Your task to perform on an android device: Go to internet settings Image 0: 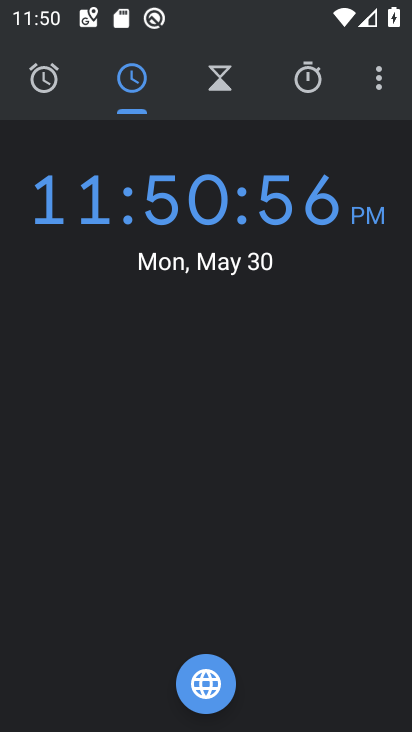
Step 0: press home button
Your task to perform on an android device: Go to internet settings Image 1: 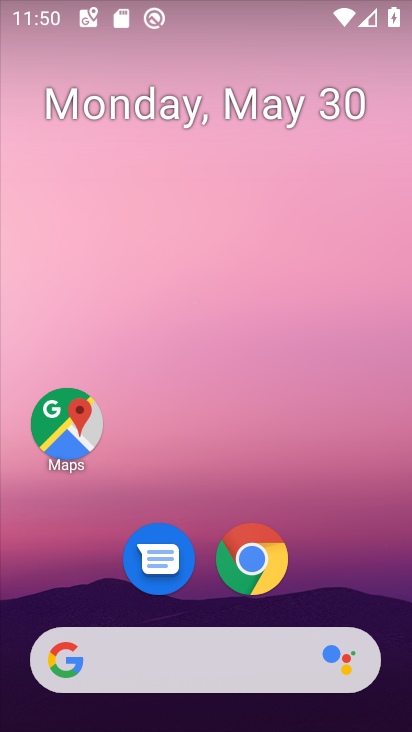
Step 1: drag from (325, 559) to (201, 93)
Your task to perform on an android device: Go to internet settings Image 2: 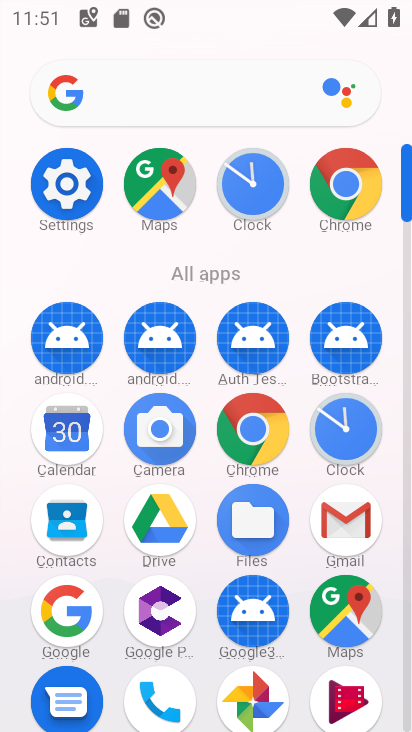
Step 2: click (79, 188)
Your task to perform on an android device: Go to internet settings Image 3: 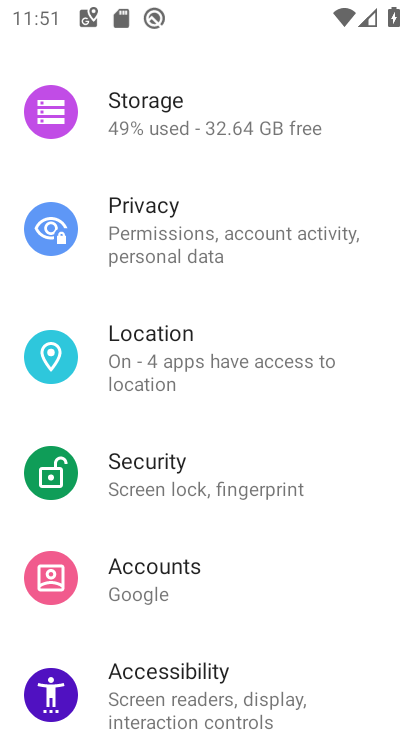
Step 3: drag from (211, 244) to (244, 624)
Your task to perform on an android device: Go to internet settings Image 4: 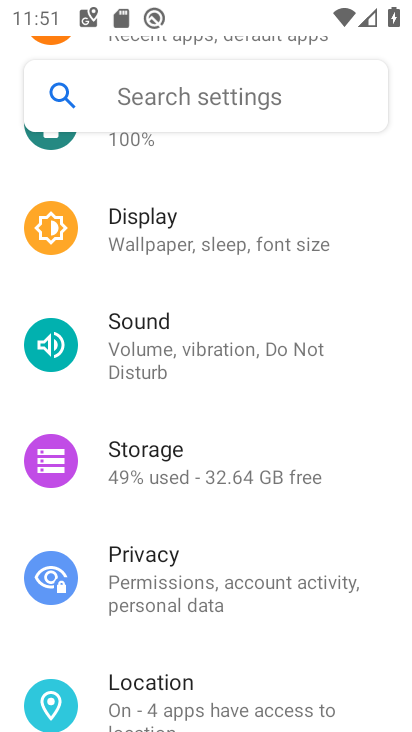
Step 4: drag from (189, 169) to (238, 662)
Your task to perform on an android device: Go to internet settings Image 5: 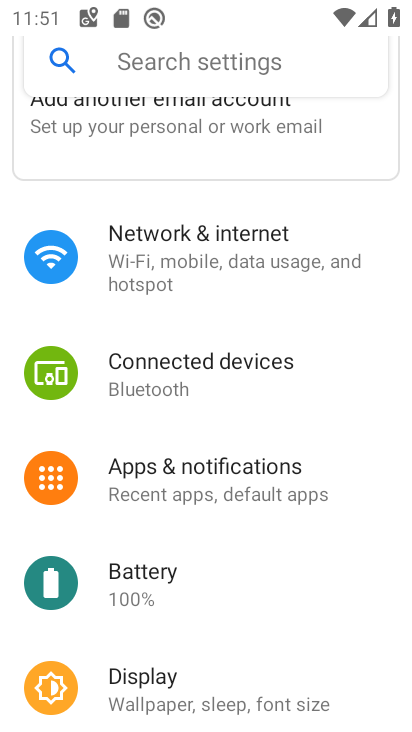
Step 5: click (238, 289)
Your task to perform on an android device: Go to internet settings Image 6: 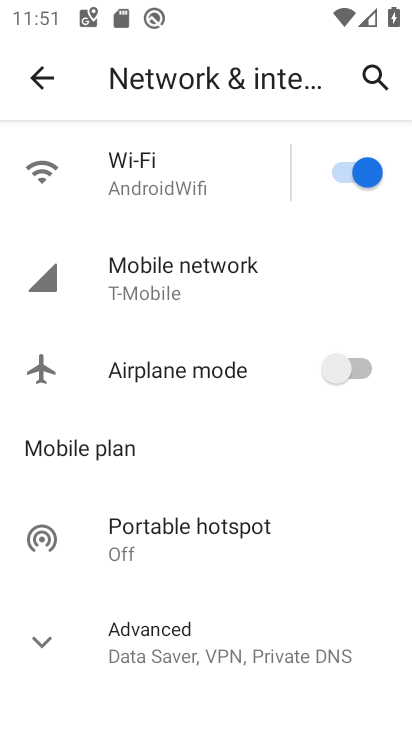
Step 6: task complete